Your task to perform on an android device: change the clock display to analog Image 0: 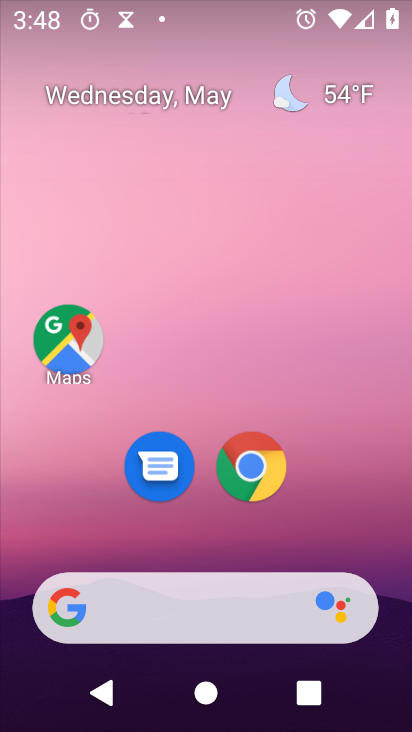
Step 0: drag from (373, 539) to (269, 59)
Your task to perform on an android device: change the clock display to analog Image 1: 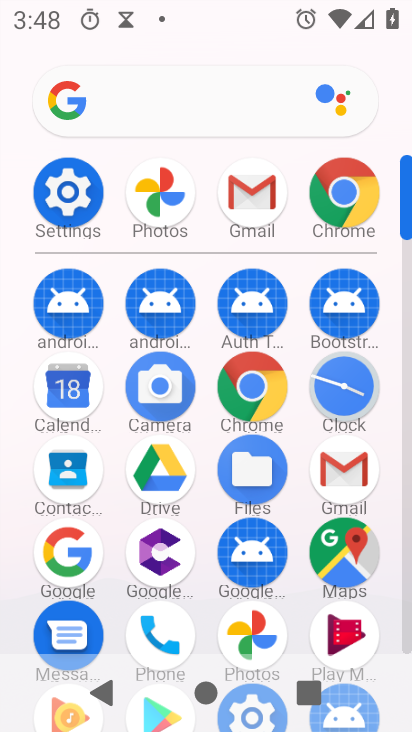
Step 1: click (341, 374)
Your task to perform on an android device: change the clock display to analog Image 2: 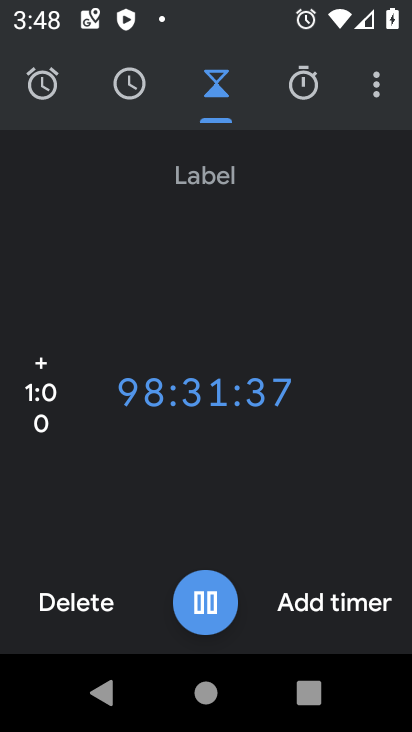
Step 2: click (388, 91)
Your task to perform on an android device: change the clock display to analog Image 3: 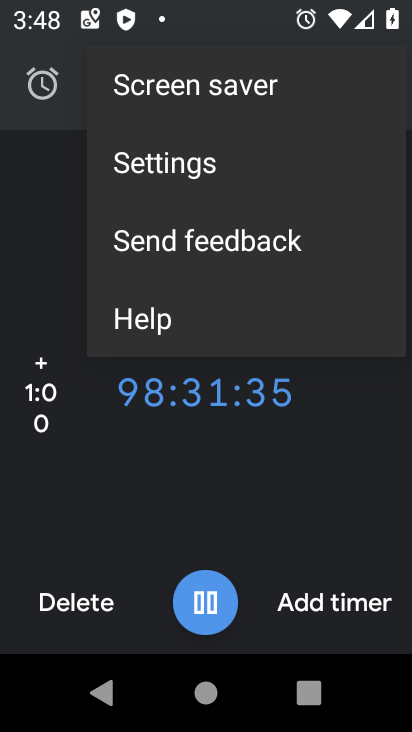
Step 3: click (297, 175)
Your task to perform on an android device: change the clock display to analog Image 4: 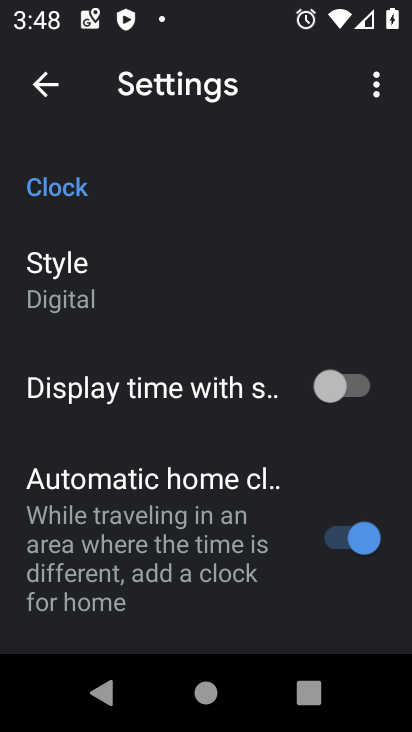
Step 4: click (154, 283)
Your task to perform on an android device: change the clock display to analog Image 5: 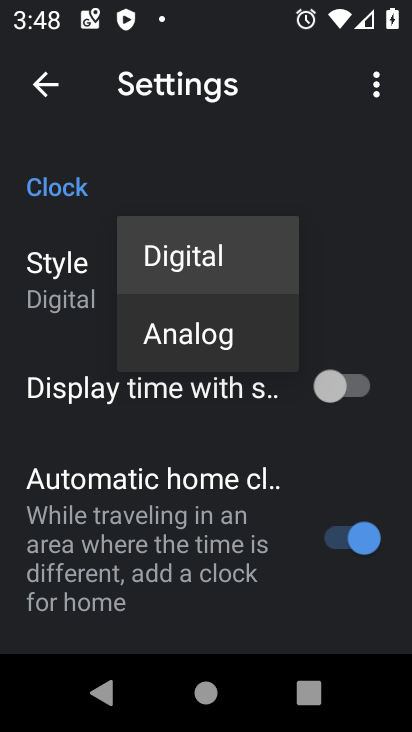
Step 5: click (176, 318)
Your task to perform on an android device: change the clock display to analog Image 6: 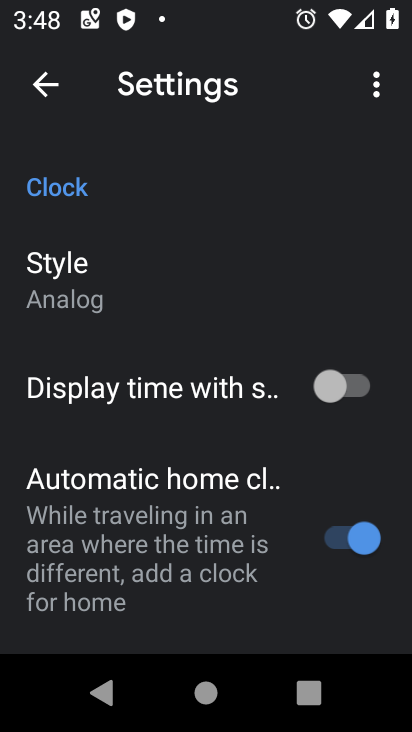
Step 6: task complete